Your task to perform on an android device: How do I get to the nearest Macy's? Image 0: 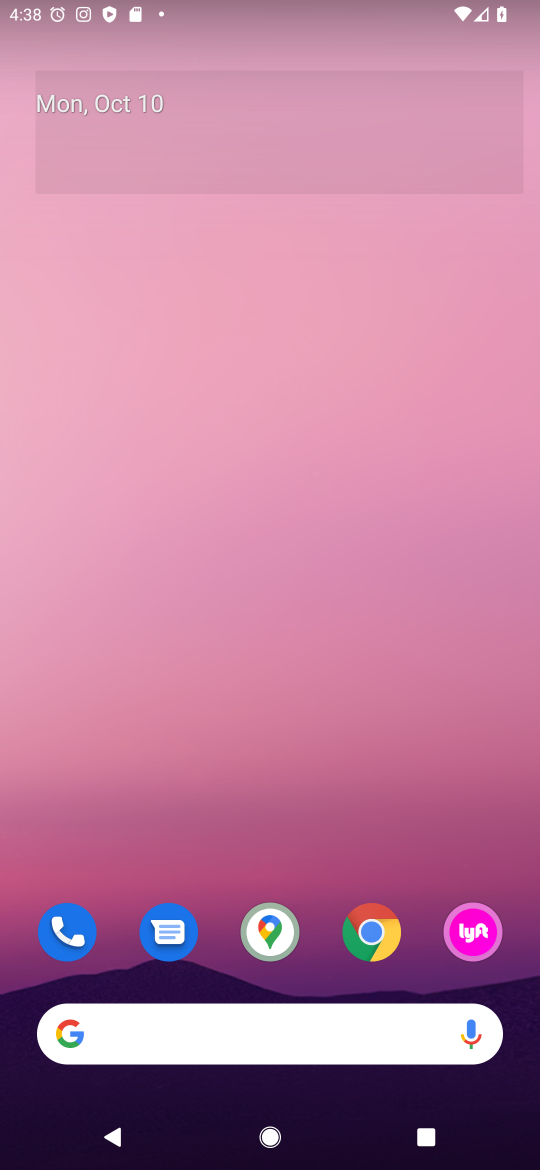
Step 0: press home button
Your task to perform on an android device: How do I get to the nearest Macy's? Image 1: 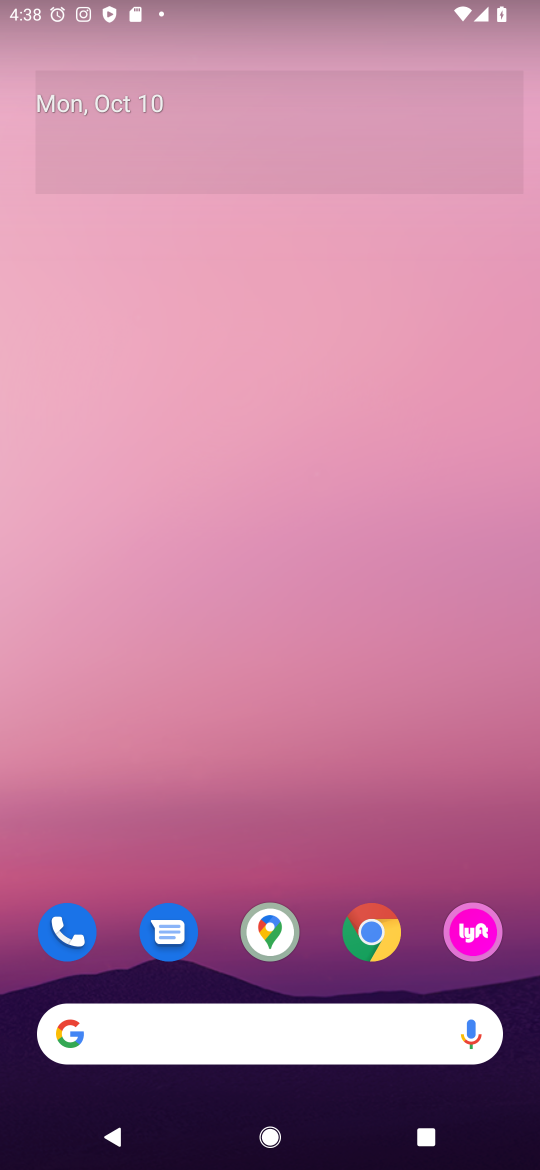
Step 1: click (348, 1047)
Your task to perform on an android device: How do I get to the nearest Macy's? Image 2: 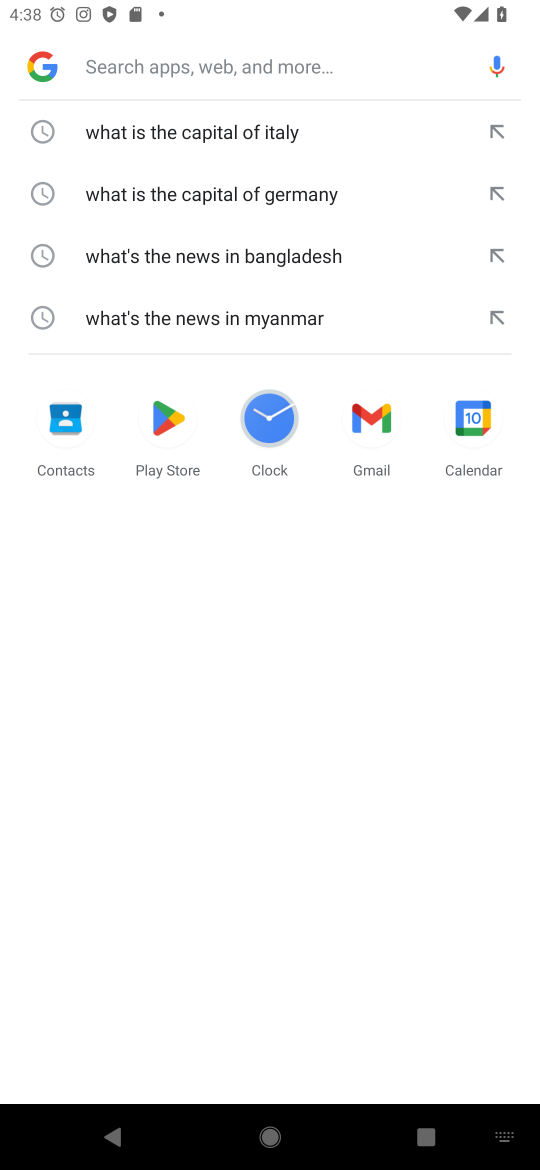
Step 2: type "How do I get to the nearest Macy's"
Your task to perform on an android device: How do I get to the nearest Macy's? Image 3: 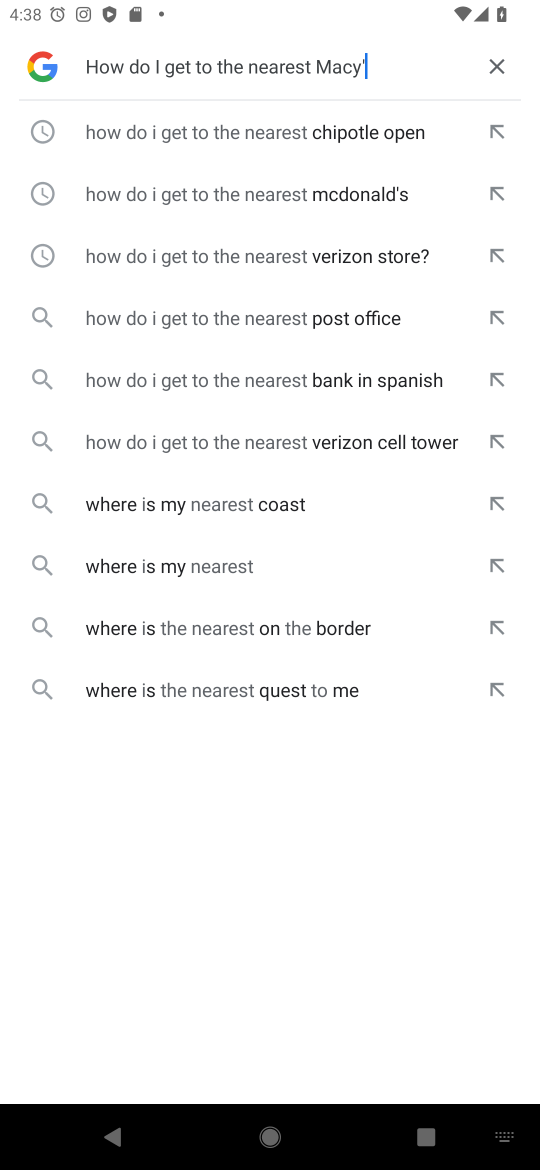
Step 3: press enter
Your task to perform on an android device: How do I get to the nearest Macy's? Image 4: 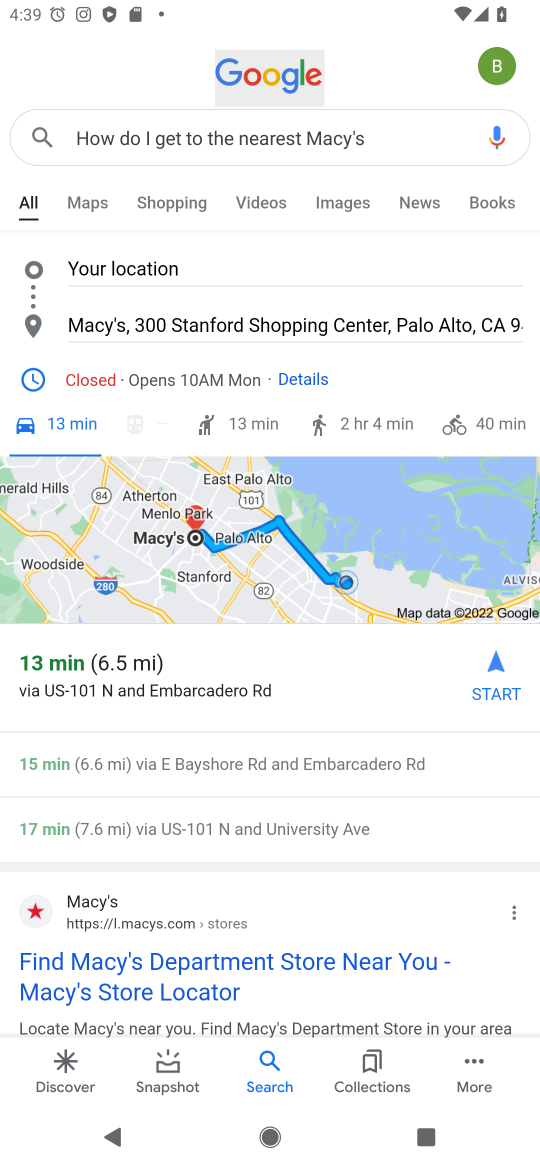
Step 4: task complete